Your task to perform on an android device: Open the stopwatch Image 0: 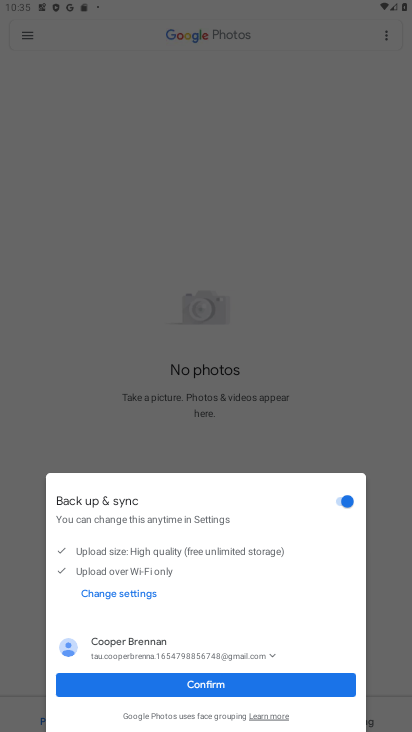
Step 0: press home button
Your task to perform on an android device: Open the stopwatch Image 1: 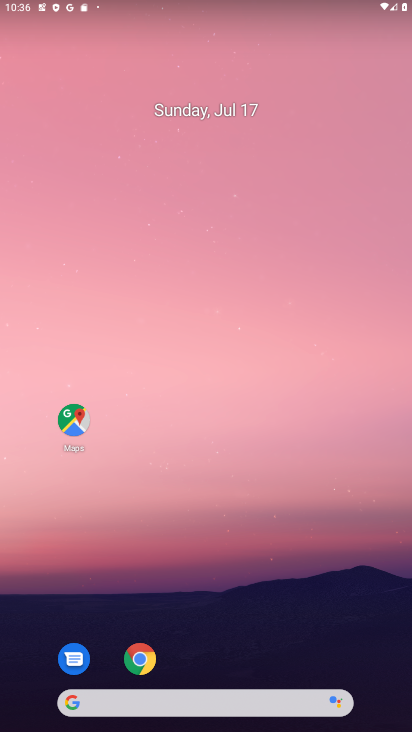
Step 1: drag from (188, 644) to (330, 70)
Your task to perform on an android device: Open the stopwatch Image 2: 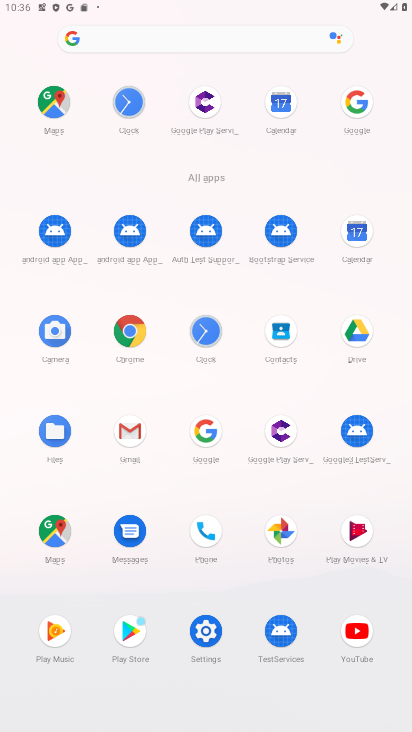
Step 2: click (127, 109)
Your task to perform on an android device: Open the stopwatch Image 3: 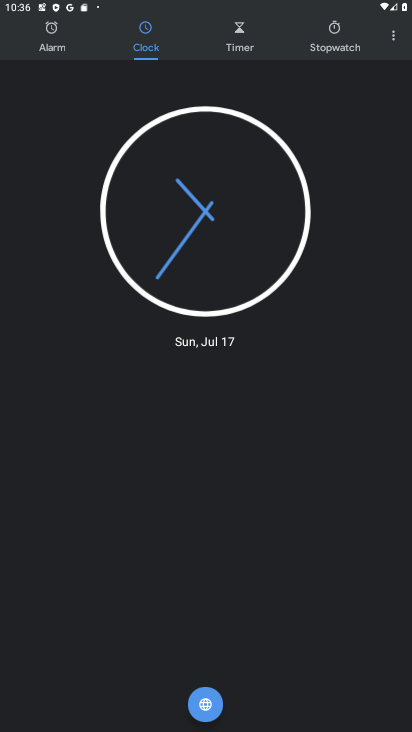
Step 3: click (348, 28)
Your task to perform on an android device: Open the stopwatch Image 4: 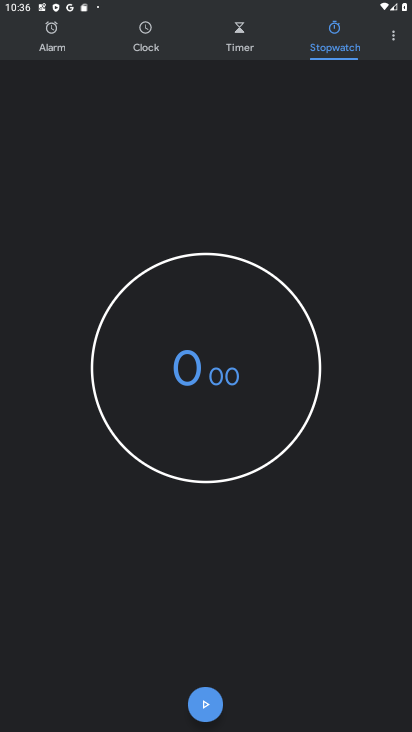
Step 4: task complete